Your task to perform on an android device: Go to display settings Image 0: 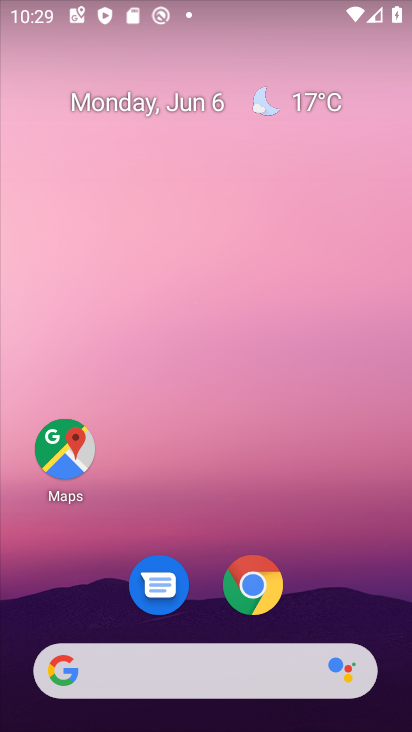
Step 0: drag from (323, 548) to (281, 25)
Your task to perform on an android device: Go to display settings Image 1: 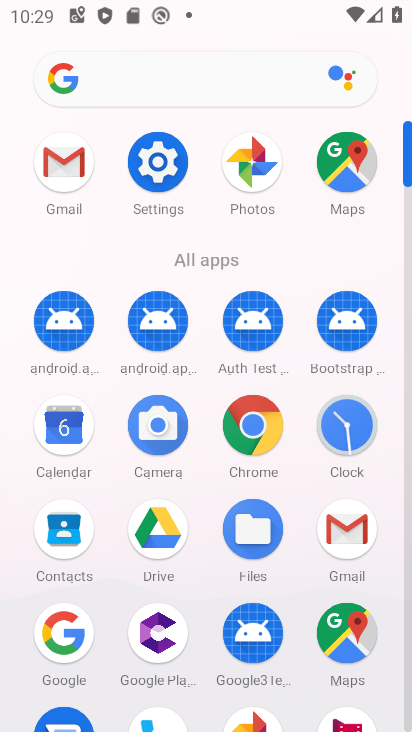
Step 1: click (168, 166)
Your task to perform on an android device: Go to display settings Image 2: 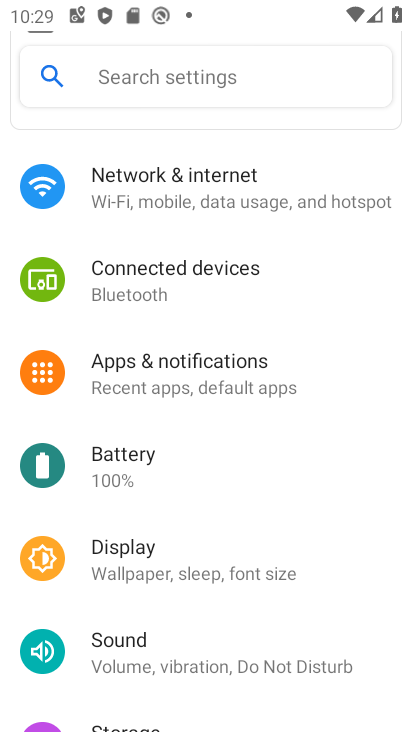
Step 2: click (199, 555)
Your task to perform on an android device: Go to display settings Image 3: 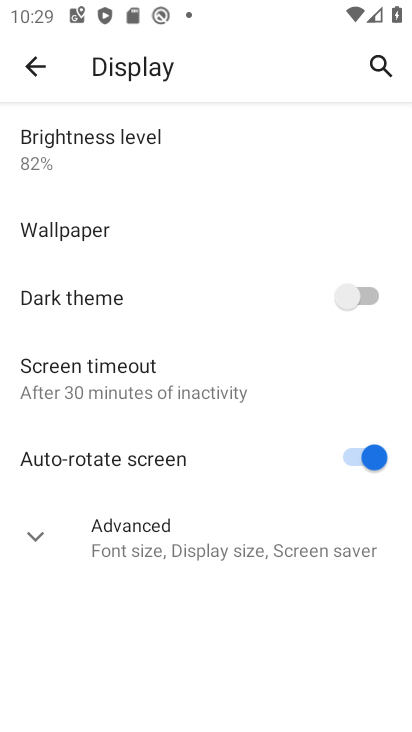
Step 3: task complete